Your task to perform on an android device: Set the phone to "Do not disturb". Image 0: 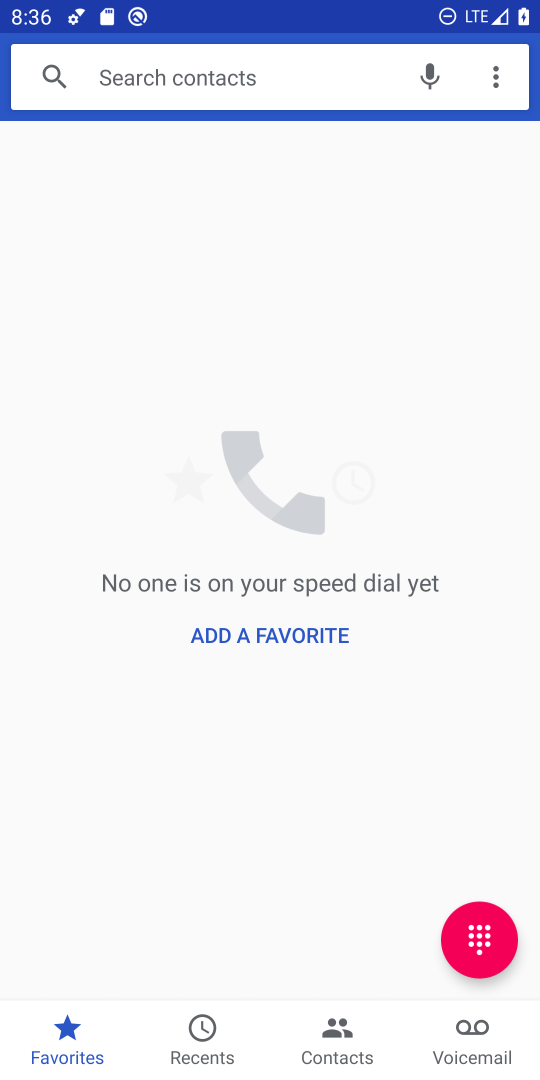
Step 0: press home button
Your task to perform on an android device: Set the phone to "Do not disturb". Image 1: 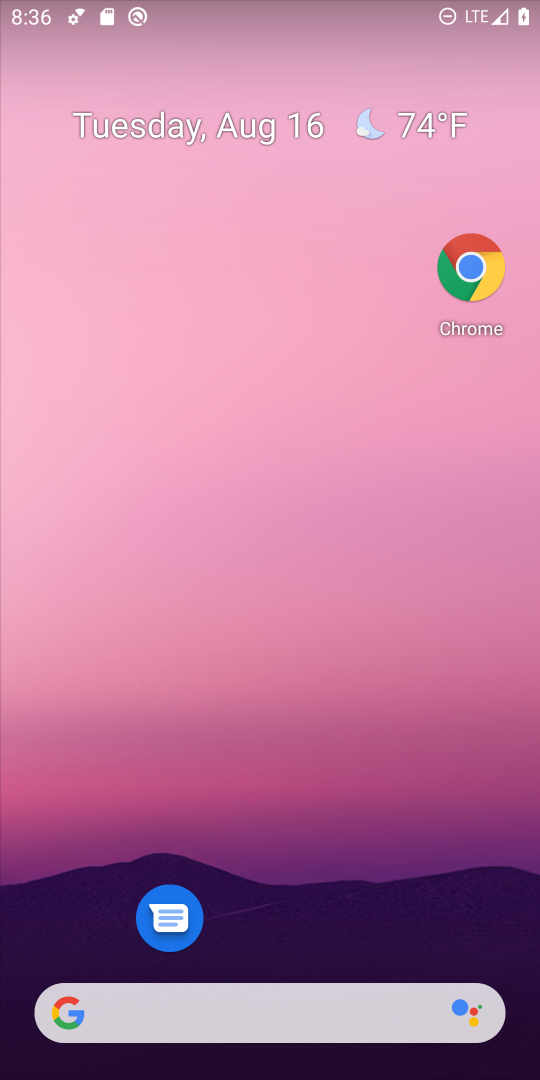
Step 1: task complete